Your task to perform on an android device: Open Maps and search for coffee Image 0: 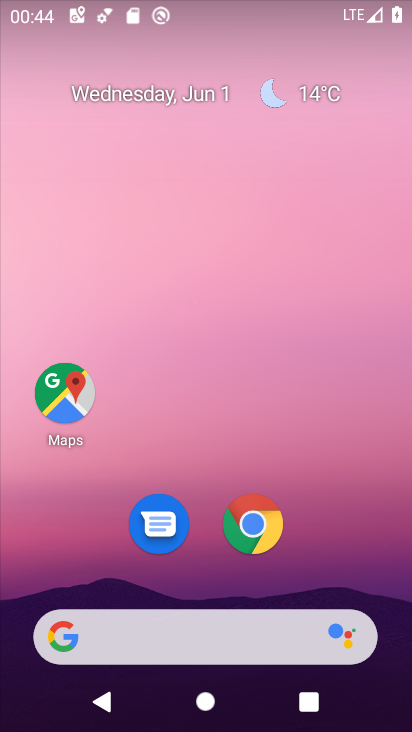
Step 0: click (65, 392)
Your task to perform on an android device: Open Maps and search for coffee Image 1: 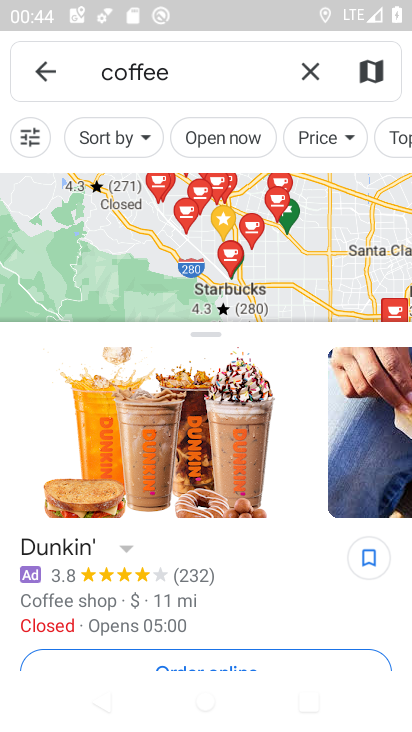
Step 1: task complete